Your task to perform on an android device: empty trash in google photos Image 0: 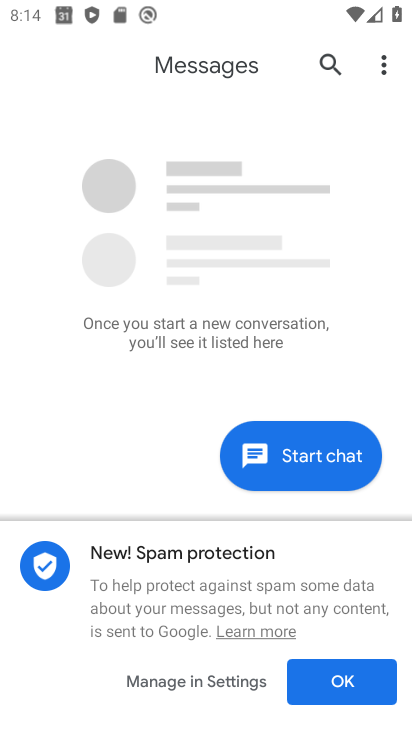
Step 0: press home button
Your task to perform on an android device: empty trash in google photos Image 1: 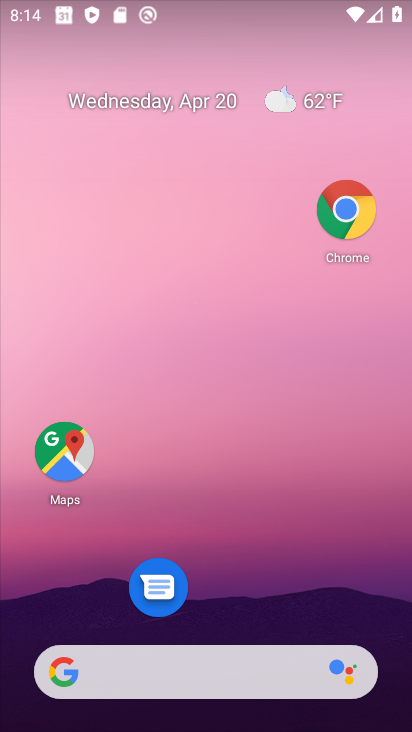
Step 1: drag from (216, 625) to (155, 89)
Your task to perform on an android device: empty trash in google photos Image 2: 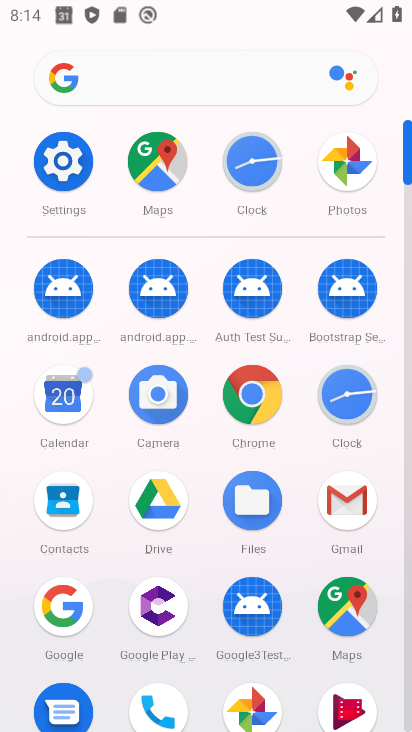
Step 2: click (256, 690)
Your task to perform on an android device: empty trash in google photos Image 3: 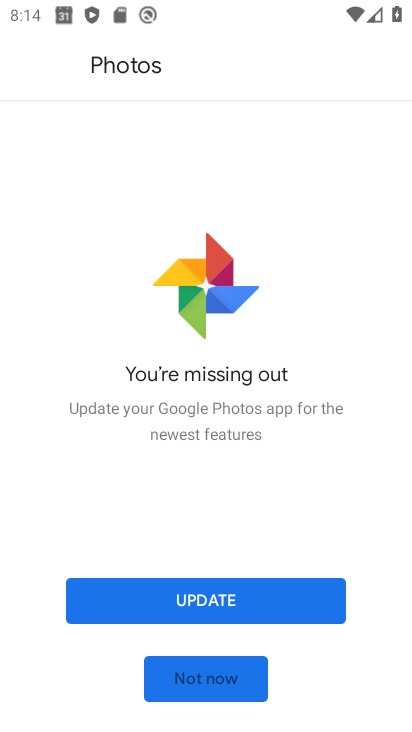
Step 3: click (256, 690)
Your task to perform on an android device: empty trash in google photos Image 4: 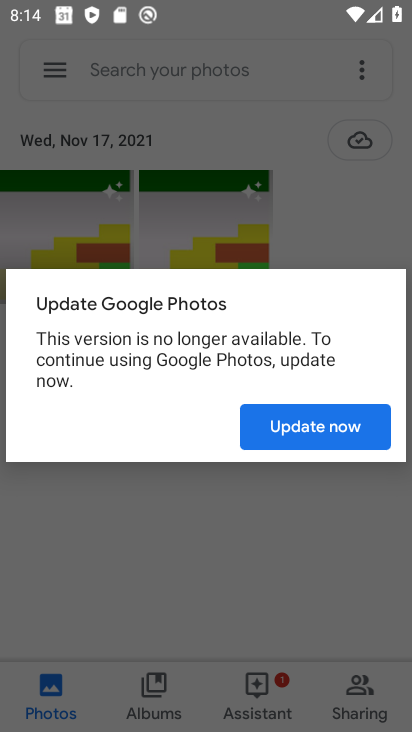
Step 4: click (342, 432)
Your task to perform on an android device: empty trash in google photos Image 5: 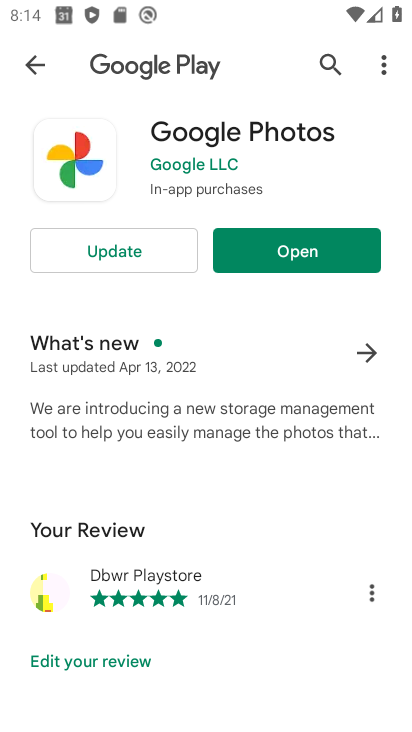
Step 5: click (294, 235)
Your task to perform on an android device: empty trash in google photos Image 6: 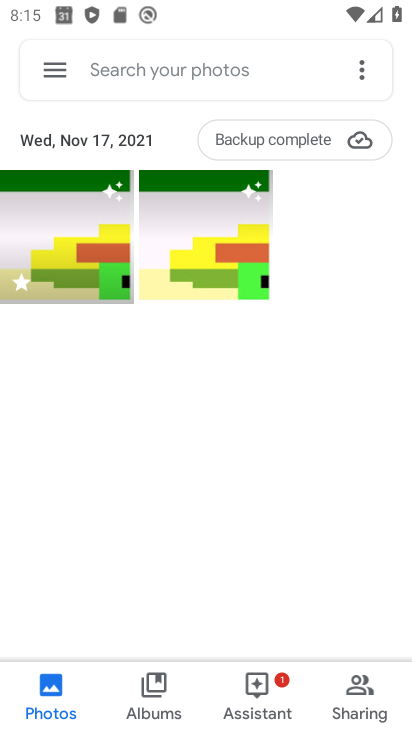
Step 6: click (59, 88)
Your task to perform on an android device: empty trash in google photos Image 7: 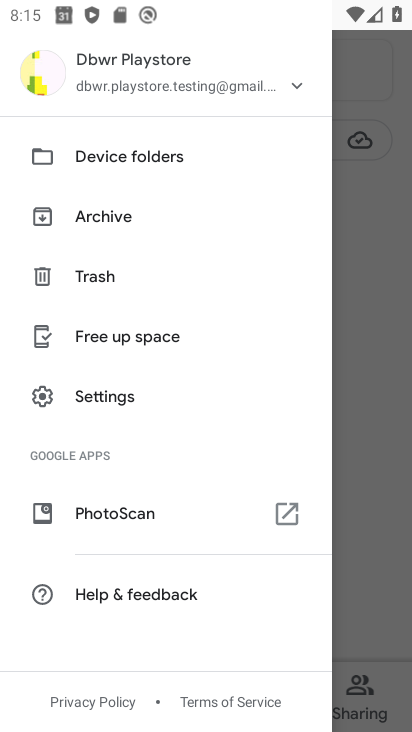
Step 7: click (150, 293)
Your task to perform on an android device: empty trash in google photos Image 8: 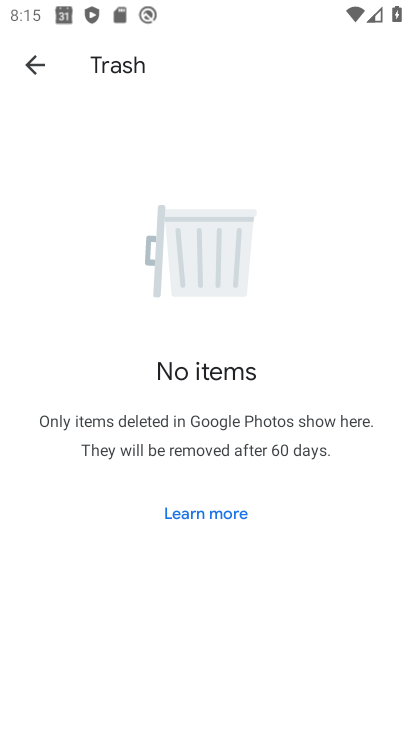
Step 8: task complete